Your task to perform on an android device: Do I have any events this weekend? Image 0: 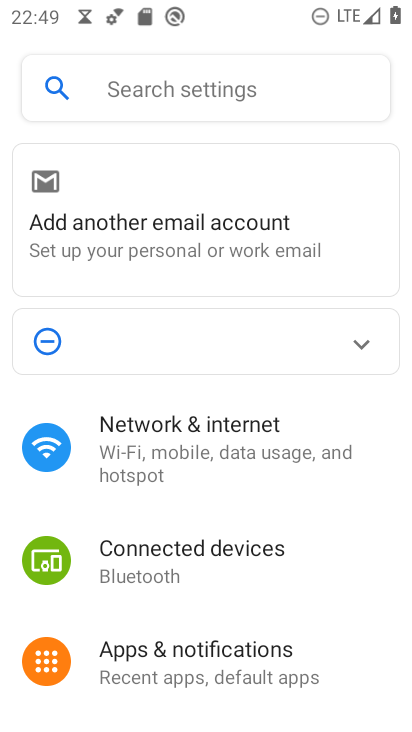
Step 0: press home button
Your task to perform on an android device: Do I have any events this weekend? Image 1: 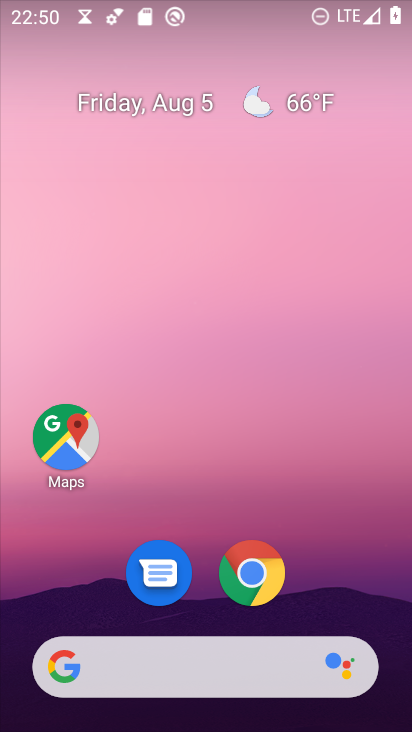
Step 1: drag from (196, 672) to (254, 146)
Your task to perform on an android device: Do I have any events this weekend? Image 2: 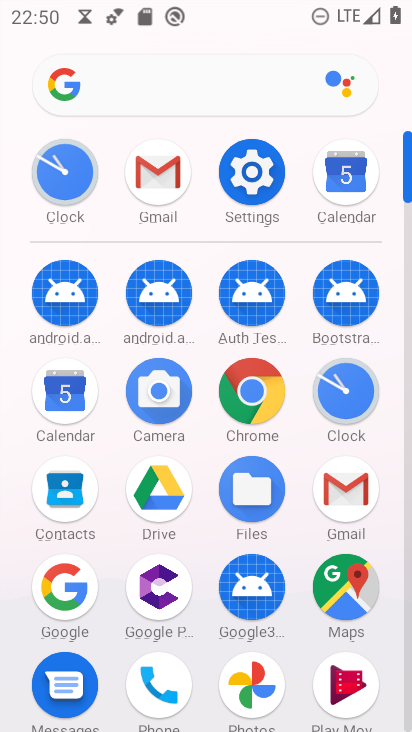
Step 2: click (346, 181)
Your task to perform on an android device: Do I have any events this weekend? Image 3: 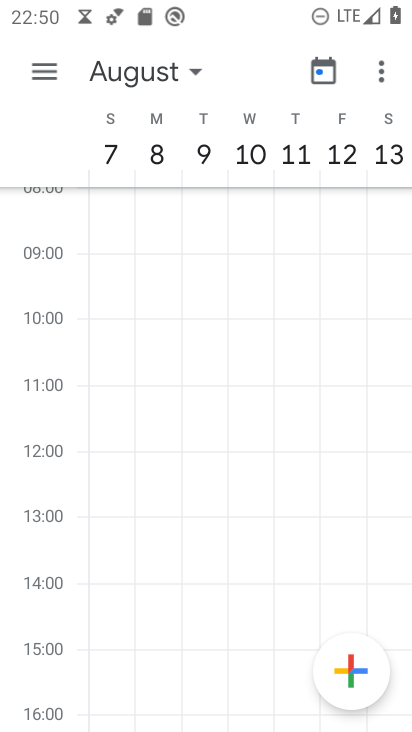
Step 3: click (325, 71)
Your task to perform on an android device: Do I have any events this weekend? Image 4: 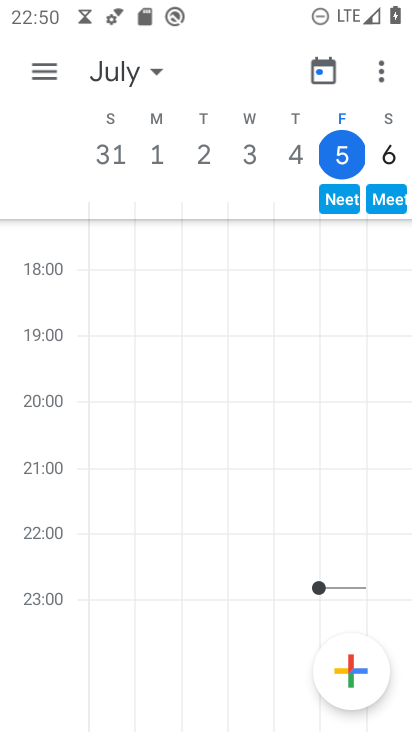
Step 4: click (159, 72)
Your task to perform on an android device: Do I have any events this weekend? Image 5: 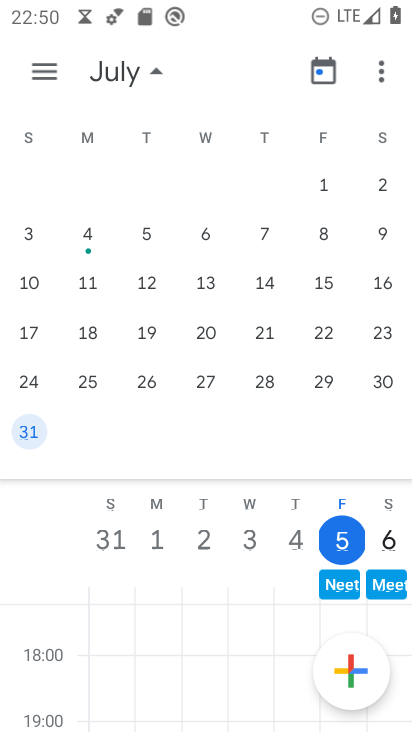
Step 5: drag from (348, 329) to (4, 284)
Your task to perform on an android device: Do I have any events this weekend? Image 6: 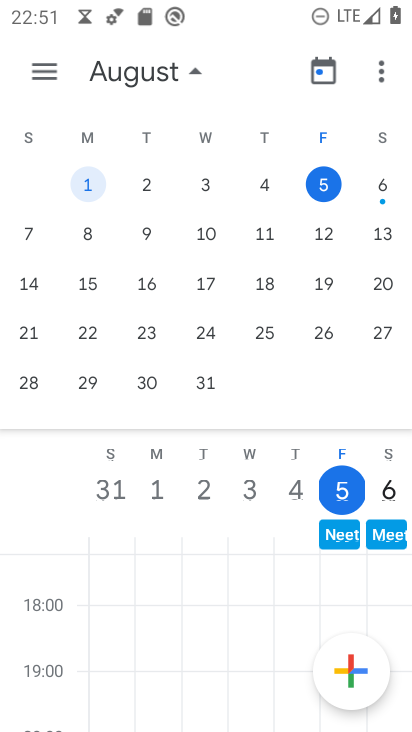
Step 6: click (384, 189)
Your task to perform on an android device: Do I have any events this weekend? Image 7: 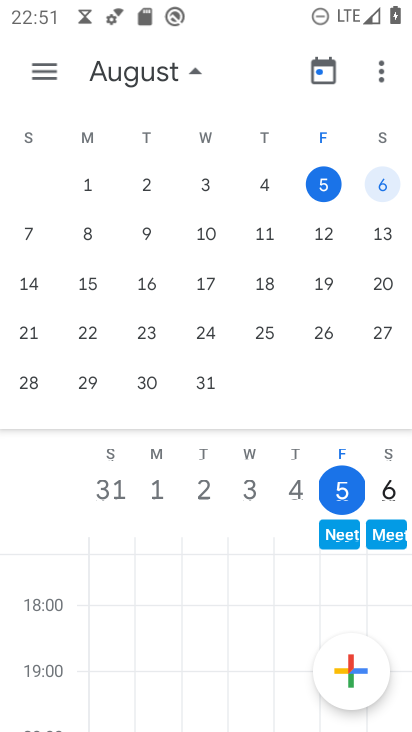
Step 7: click (48, 63)
Your task to perform on an android device: Do I have any events this weekend? Image 8: 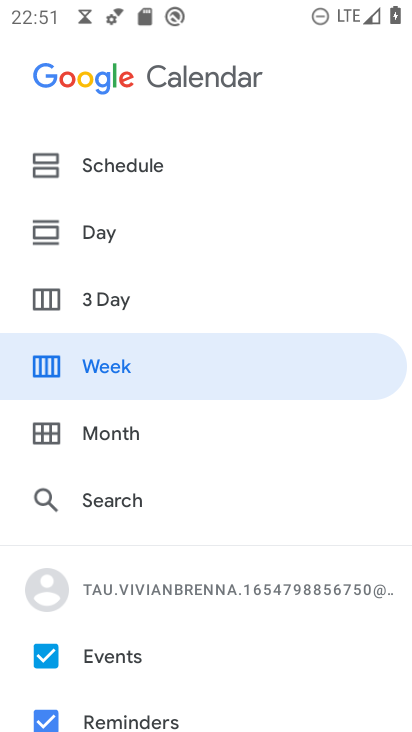
Step 8: click (106, 353)
Your task to perform on an android device: Do I have any events this weekend? Image 9: 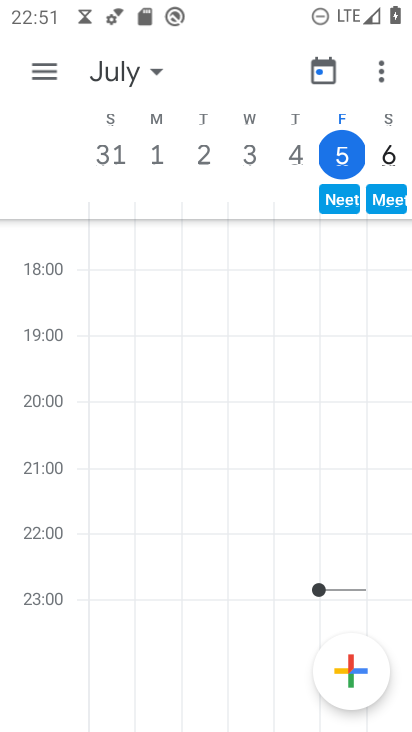
Step 9: task complete